Your task to perform on an android device: turn off improve location accuracy Image 0: 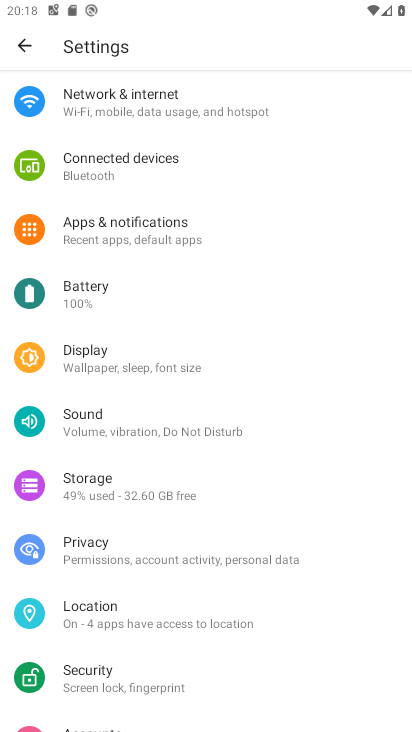
Step 0: click (94, 609)
Your task to perform on an android device: turn off improve location accuracy Image 1: 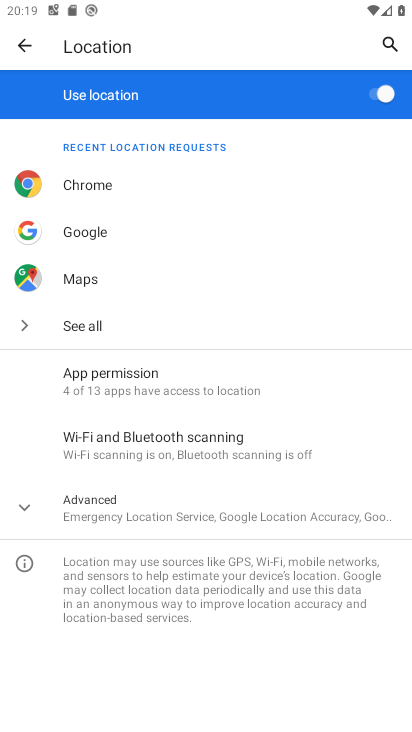
Step 1: click (22, 507)
Your task to perform on an android device: turn off improve location accuracy Image 2: 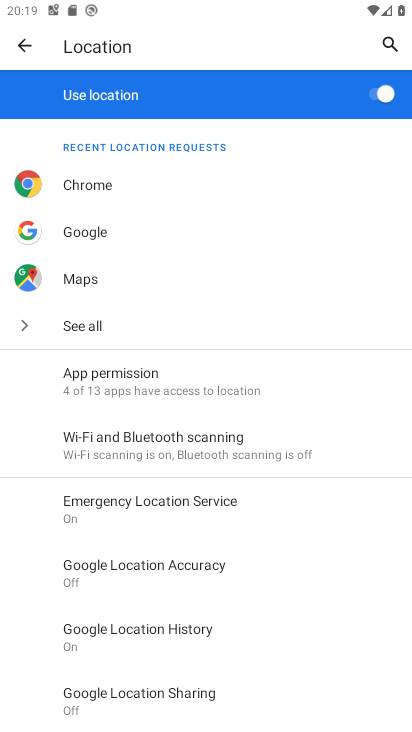
Step 2: click (152, 568)
Your task to perform on an android device: turn off improve location accuracy Image 3: 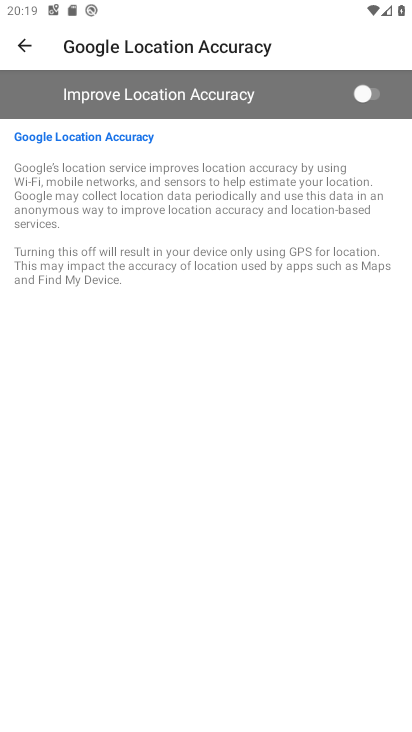
Step 3: task complete